Your task to perform on an android device: Search for vegetarian restaurants on Maps Image 0: 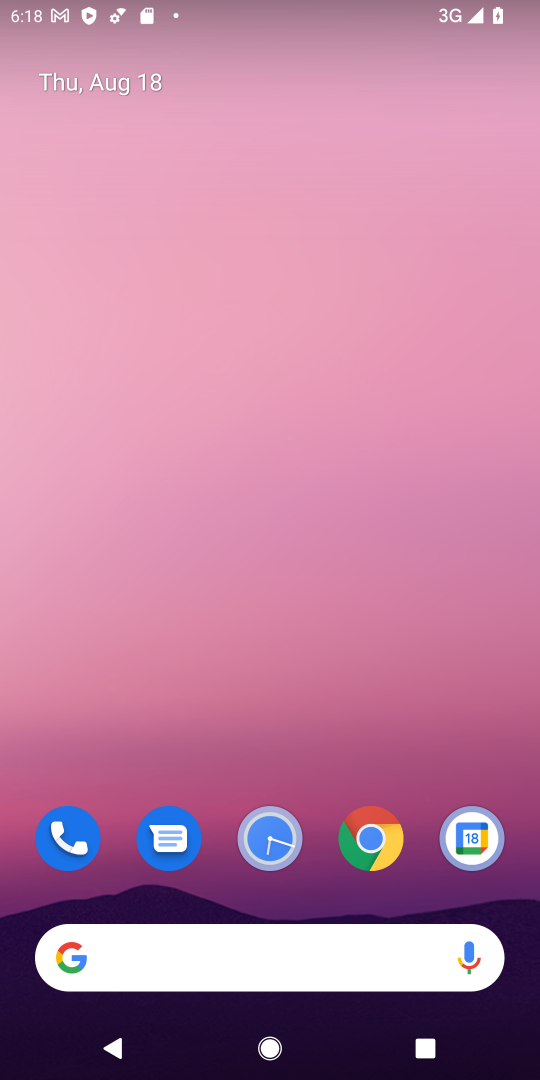
Step 0: press home button
Your task to perform on an android device: Search for vegetarian restaurants on Maps Image 1: 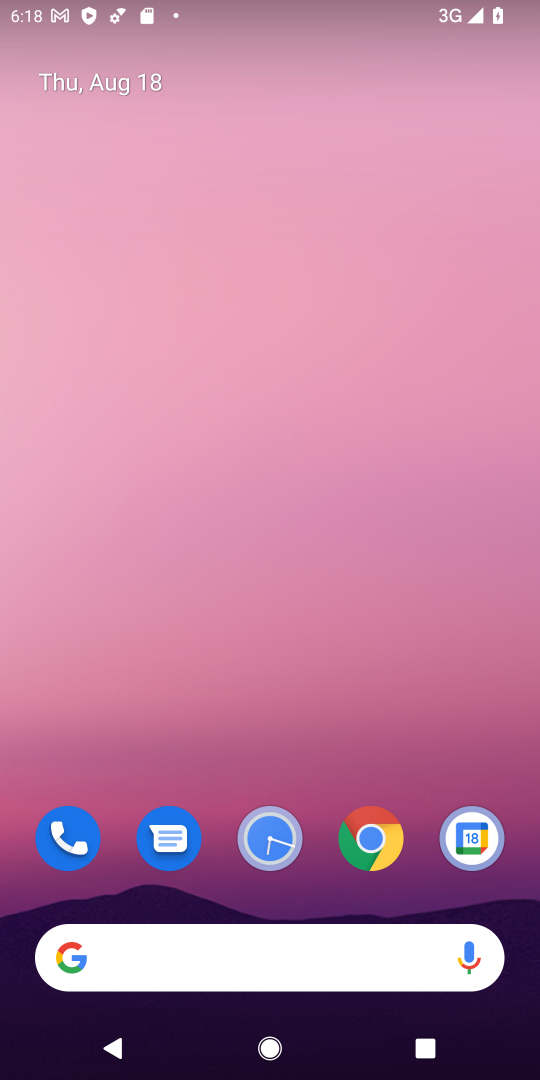
Step 1: drag from (330, 896) to (347, 211)
Your task to perform on an android device: Search for vegetarian restaurants on Maps Image 2: 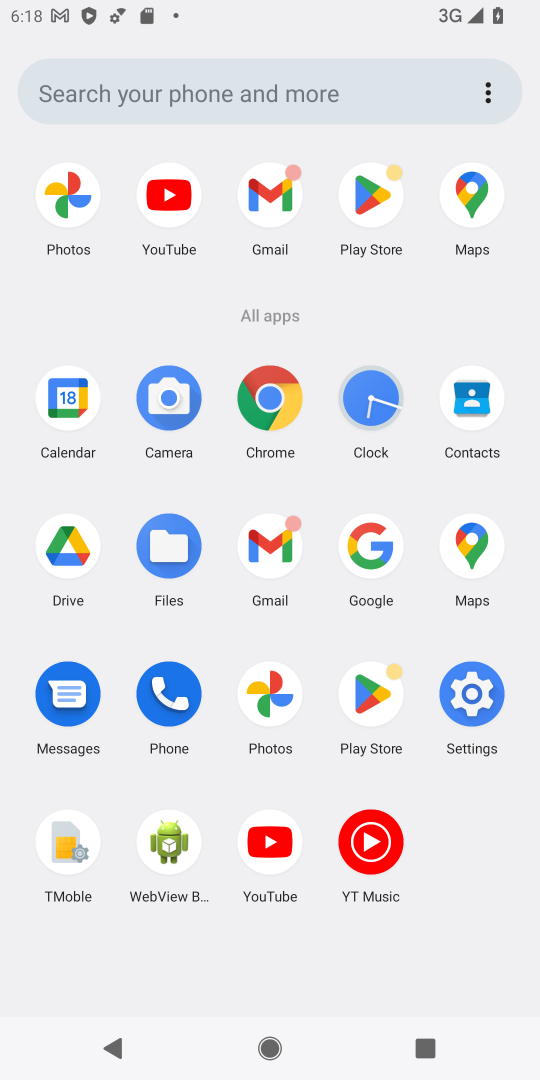
Step 2: click (477, 195)
Your task to perform on an android device: Search for vegetarian restaurants on Maps Image 3: 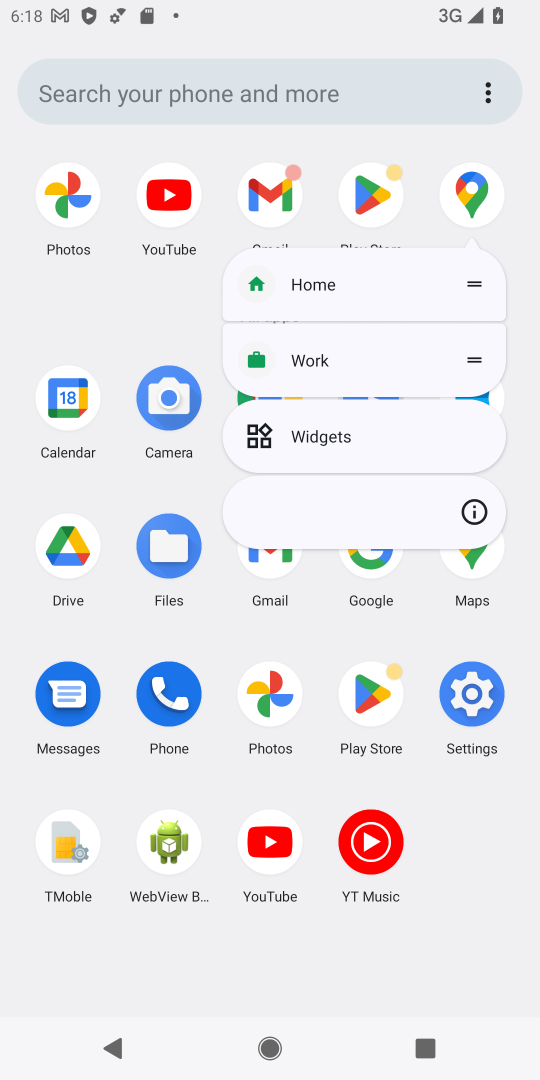
Step 3: click (477, 195)
Your task to perform on an android device: Search for vegetarian restaurants on Maps Image 4: 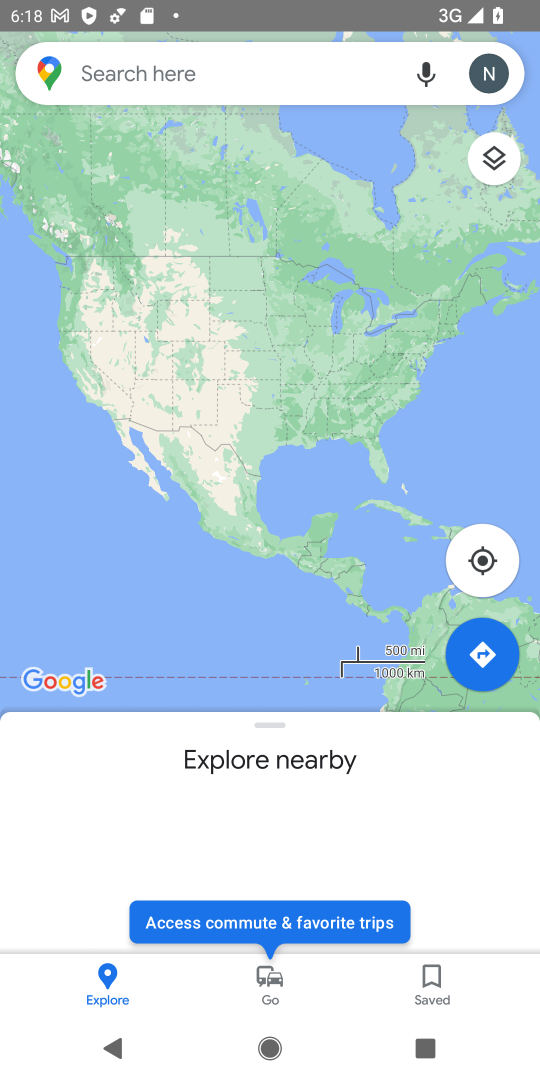
Step 4: click (203, 76)
Your task to perform on an android device: Search for vegetarian restaurants on Maps Image 5: 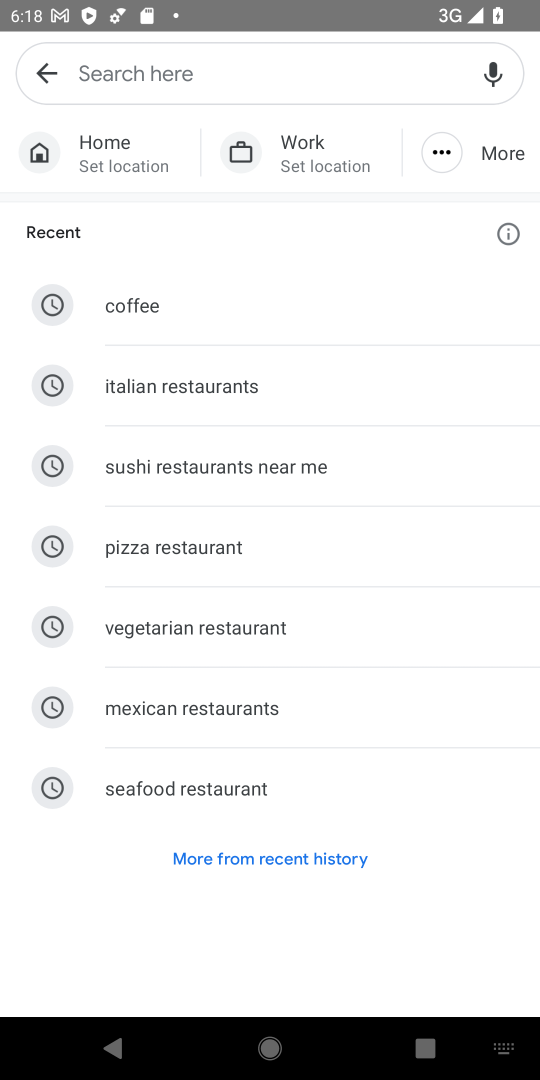
Step 5: click (184, 632)
Your task to perform on an android device: Search for vegetarian restaurants on Maps Image 6: 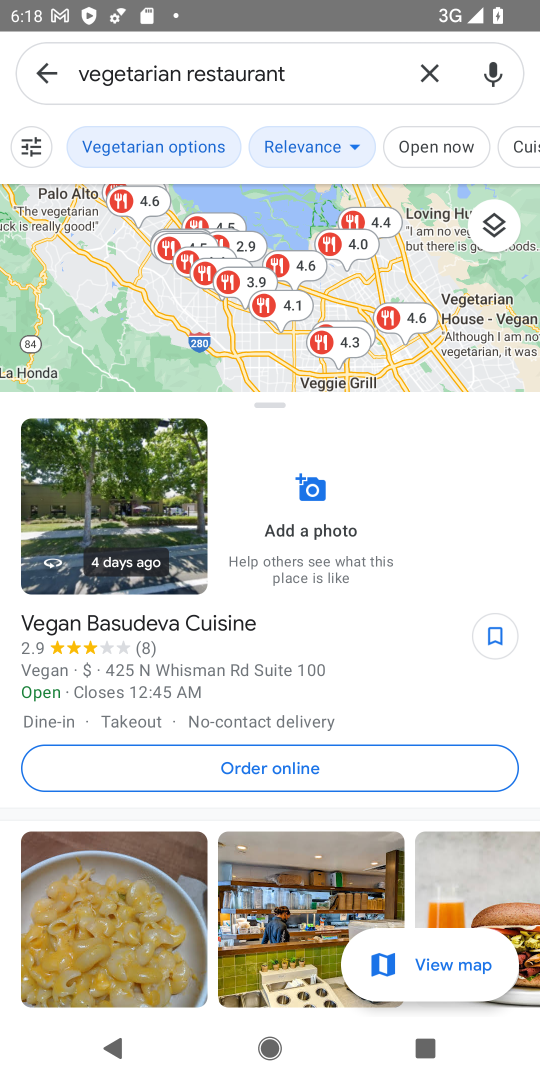
Step 6: task complete